Your task to perform on an android device: Open Google Maps and go to "Timeline" Image 0: 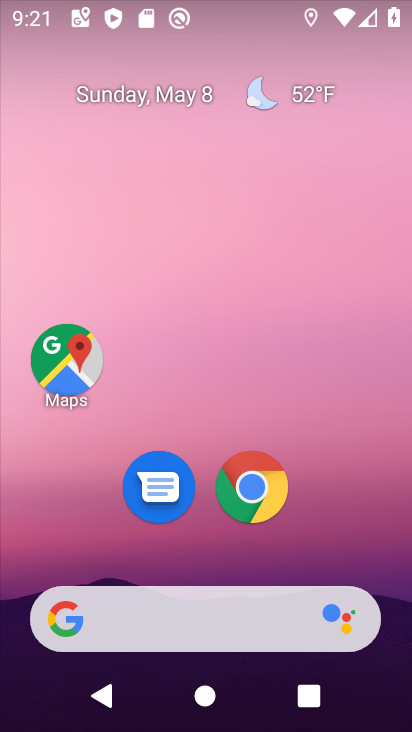
Step 0: drag from (399, 617) to (299, 18)
Your task to perform on an android device: Open Google Maps and go to "Timeline" Image 1: 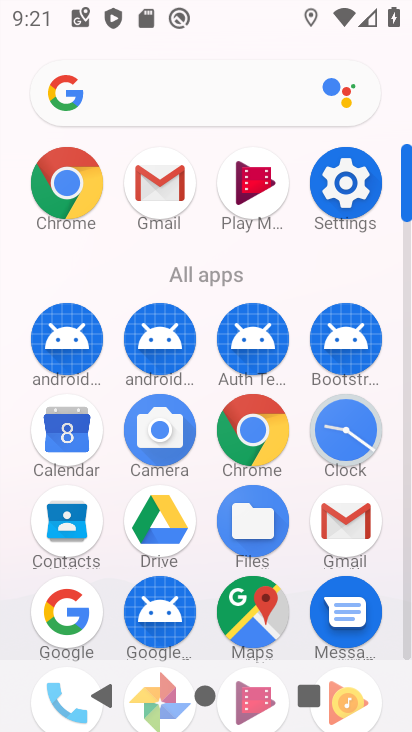
Step 1: click (234, 601)
Your task to perform on an android device: Open Google Maps and go to "Timeline" Image 2: 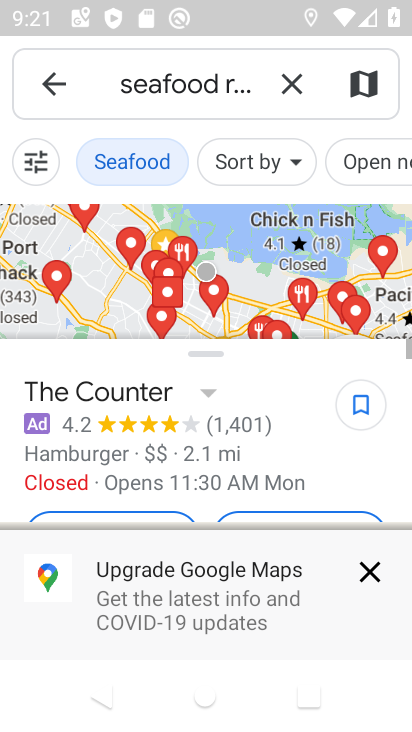
Step 2: click (293, 80)
Your task to perform on an android device: Open Google Maps and go to "Timeline" Image 3: 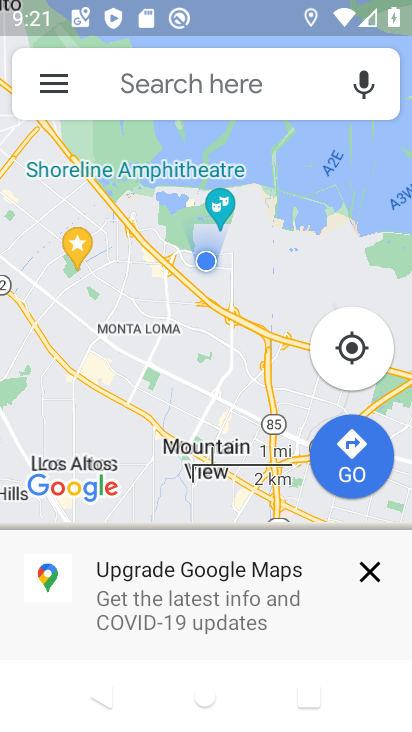
Step 3: click (44, 79)
Your task to perform on an android device: Open Google Maps and go to "Timeline" Image 4: 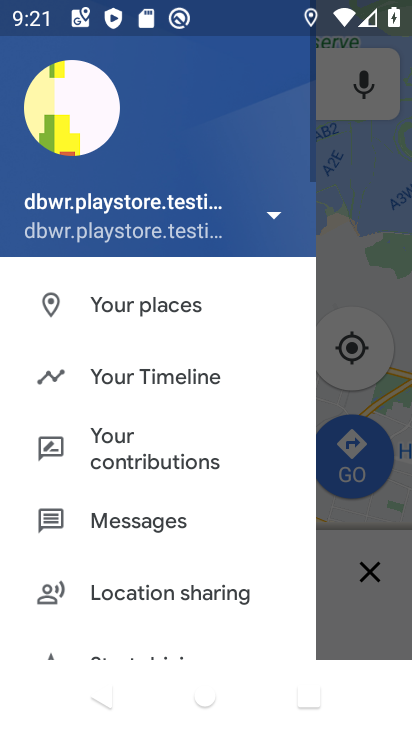
Step 4: click (162, 371)
Your task to perform on an android device: Open Google Maps and go to "Timeline" Image 5: 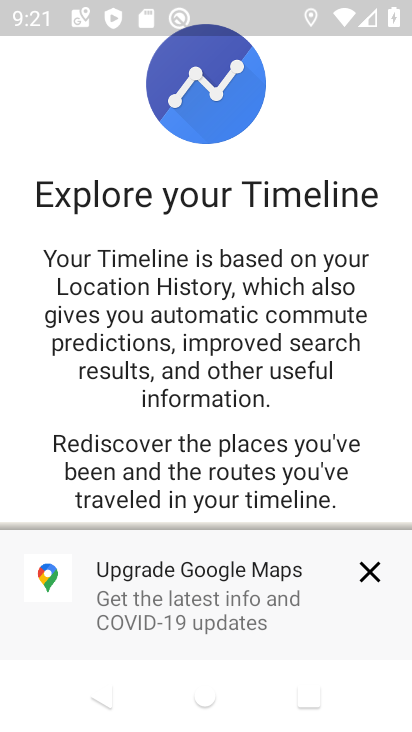
Step 5: task complete